Your task to perform on an android device: Show me productivity apps on the Play Store Image 0: 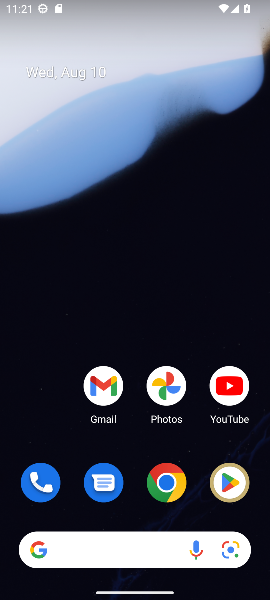
Step 0: drag from (50, 434) to (114, 81)
Your task to perform on an android device: Show me productivity apps on the Play Store Image 1: 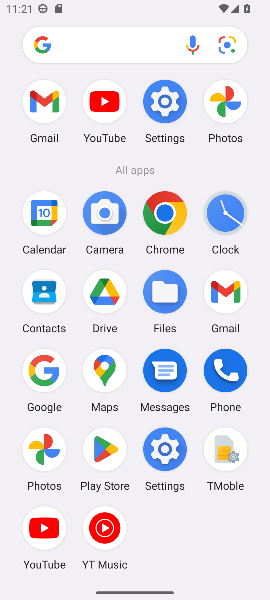
Step 1: click (100, 467)
Your task to perform on an android device: Show me productivity apps on the Play Store Image 2: 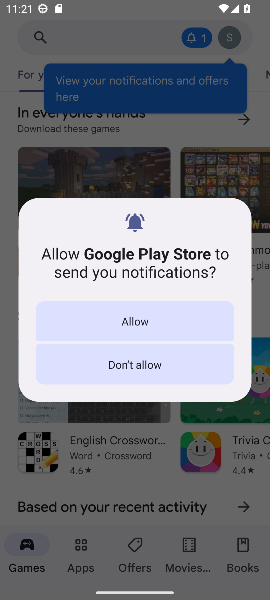
Step 2: task complete